Your task to perform on an android device: Open CNN.com Image 0: 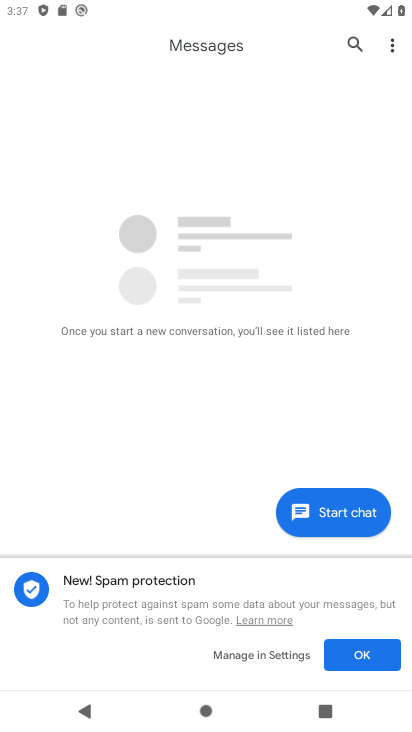
Step 0: press home button
Your task to perform on an android device: Open CNN.com Image 1: 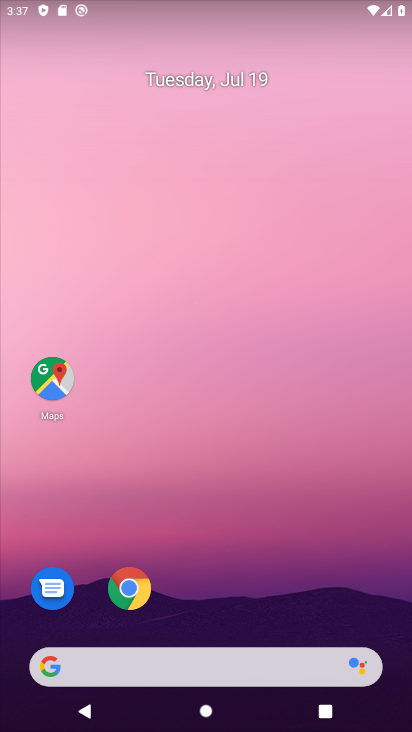
Step 1: click (134, 579)
Your task to perform on an android device: Open CNN.com Image 2: 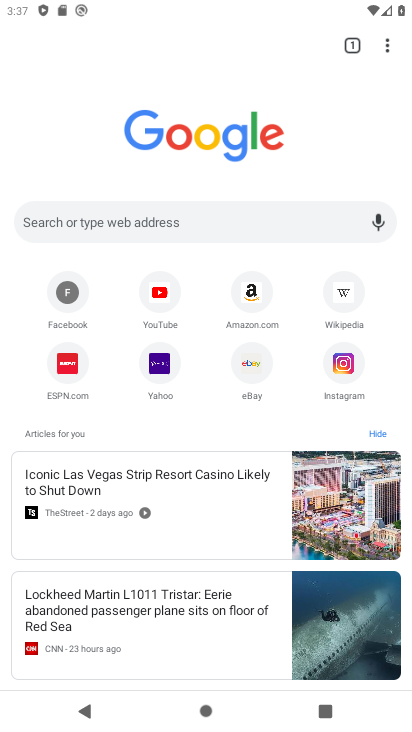
Step 2: click (178, 214)
Your task to perform on an android device: Open CNN.com Image 3: 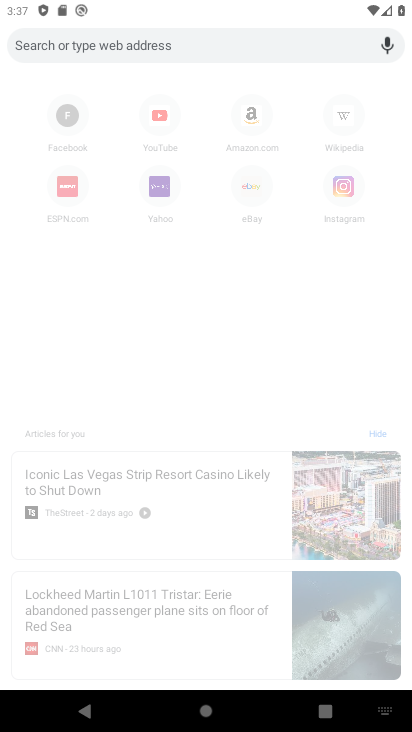
Step 3: type "cnn.com"
Your task to perform on an android device: Open CNN.com Image 4: 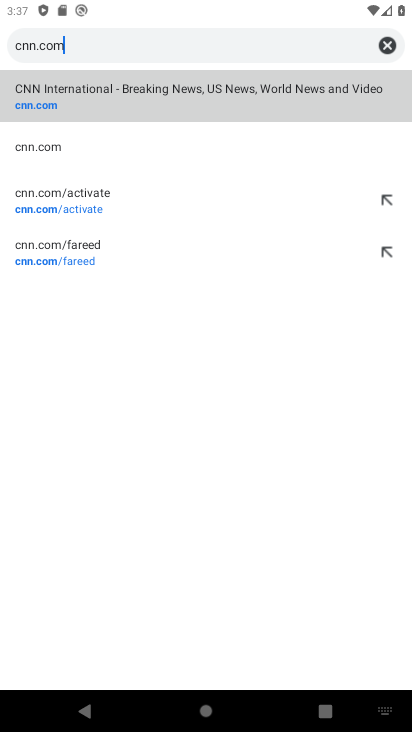
Step 4: click (254, 103)
Your task to perform on an android device: Open CNN.com Image 5: 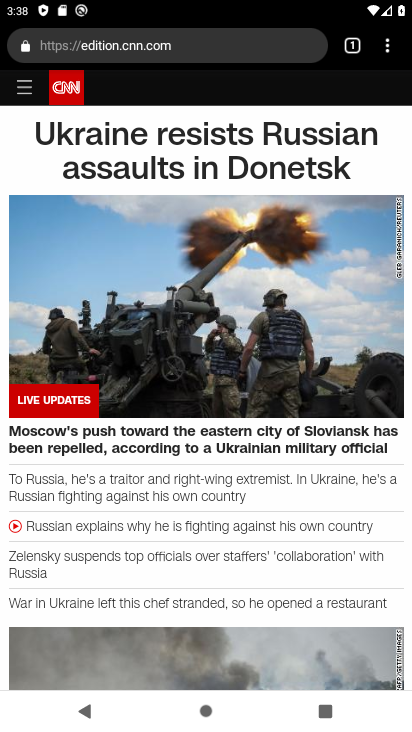
Step 5: task complete